Your task to perform on an android device: Clear all items from cart on costco.com. Image 0: 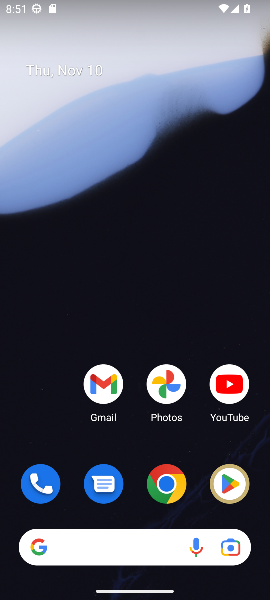
Step 0: click (167, 489)
Your task to perform on an android device: Clear all items from cart on costco.com. Image 1: 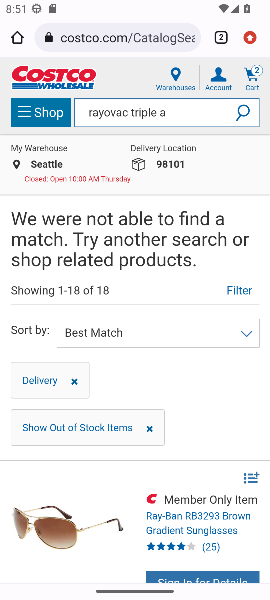
Step 1: click (252, 79)
Your task to perform on an android device: Clear all items from cart on costco.com. Image 2: 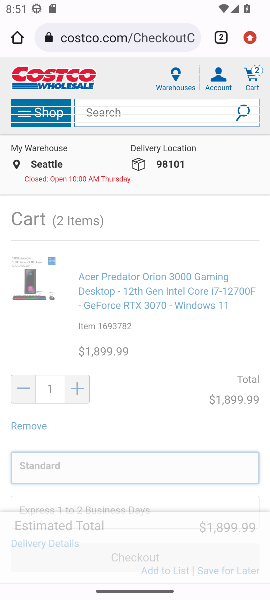
Step 2: drag from (99, 398) to (104, 301)
Your task to perform on an android device: Clear all items from cart on costco.com. Image 3: 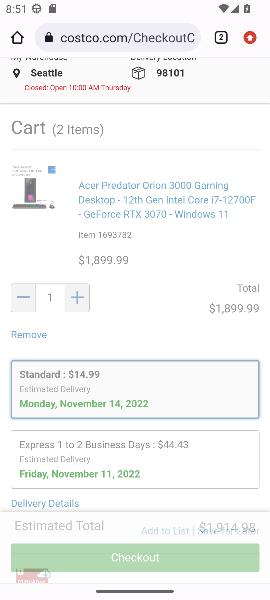
Step 3: click (42, 336)
Your task to perform on an android device: Clear all items from cart on costco.com. Image 4: 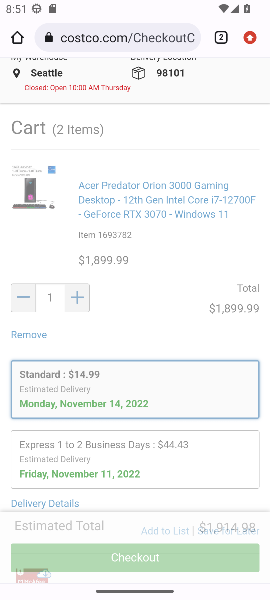
Step 4: drag from (161, 451) to (174, 211)
Your task to perform on an android device: Clear all items from cart on costco.com. Image 5: 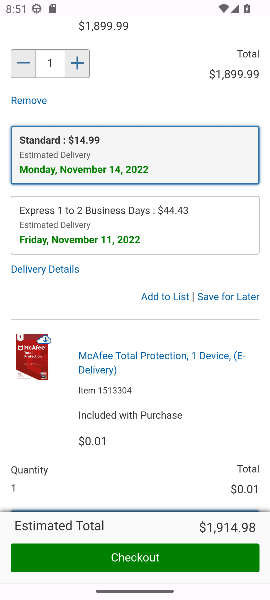
Step 5: click (230, 303)
Your task to perform on an android device: Clear all items from cart on costco.com. Image 6: 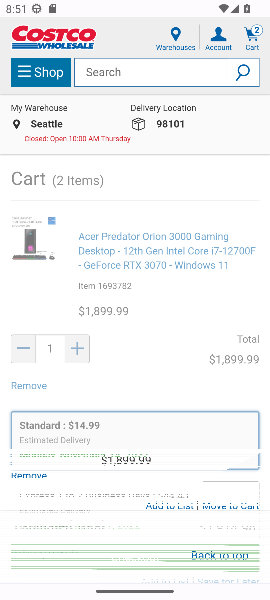
Step 6: task complete